Your task to perform on an android device: uninstall "Firefox Browser" Image 0: 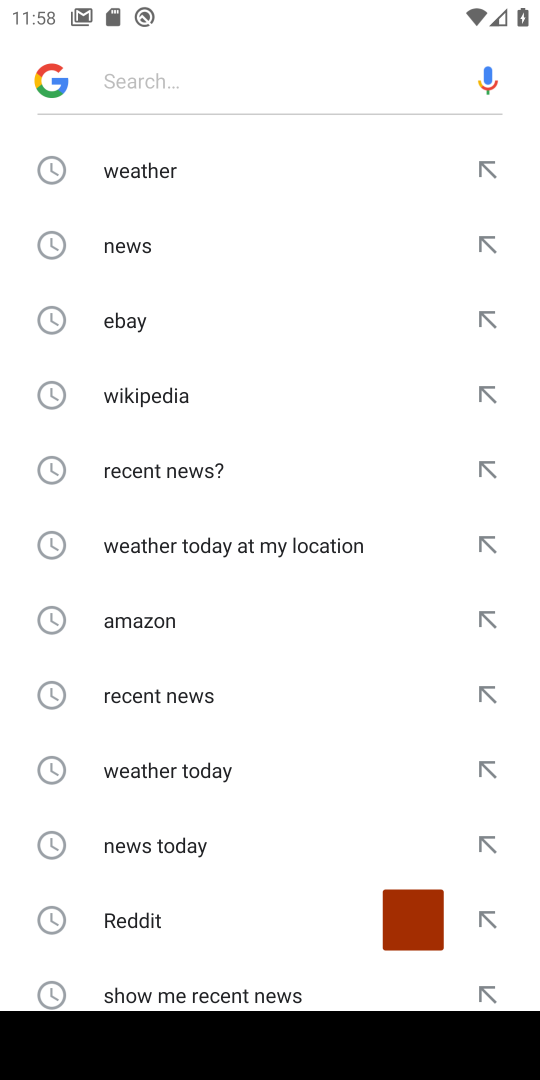
Step 0: press back button
Your task to perform on an android device: uninstall "Firefox Browser" Image 1: 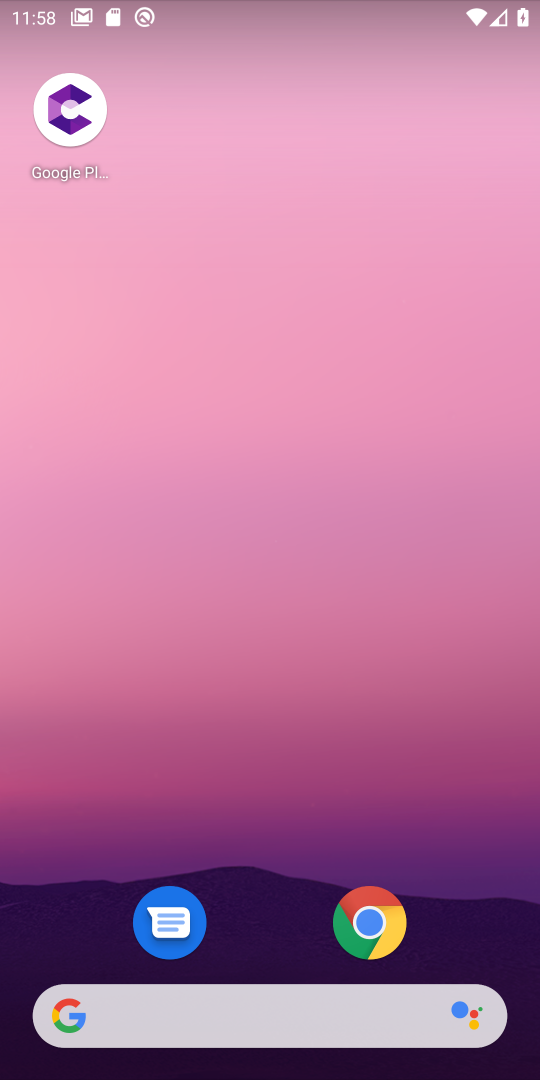
Step 1: drag from (250, 742) to (252, 126)
Your task to perform on an android device: uninstall "Firefox Browser" Image 2: 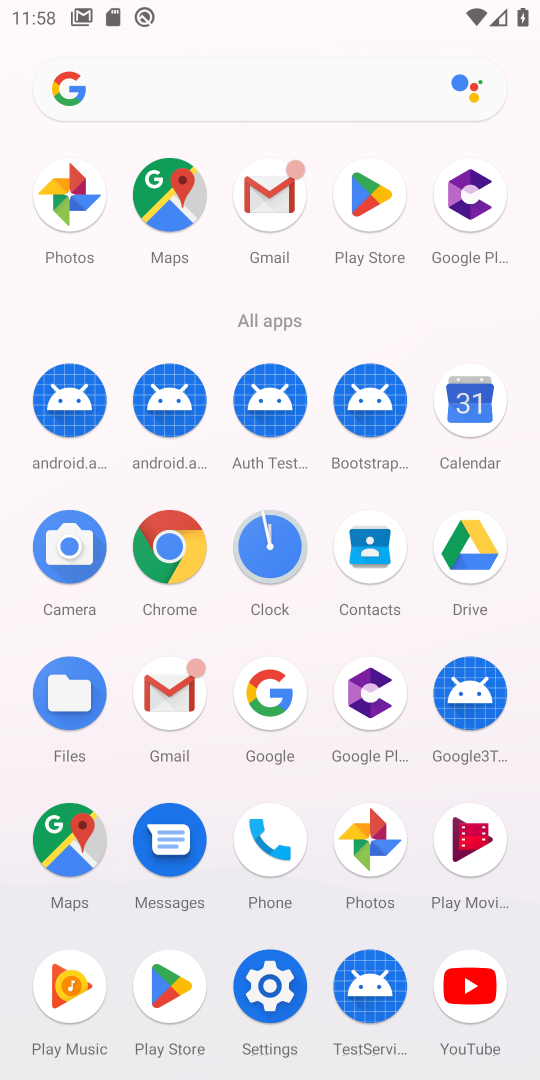
Step 2: click (170, 967)
Your task to perform on an android device: uninstall "Firefox Browser" Image 3: 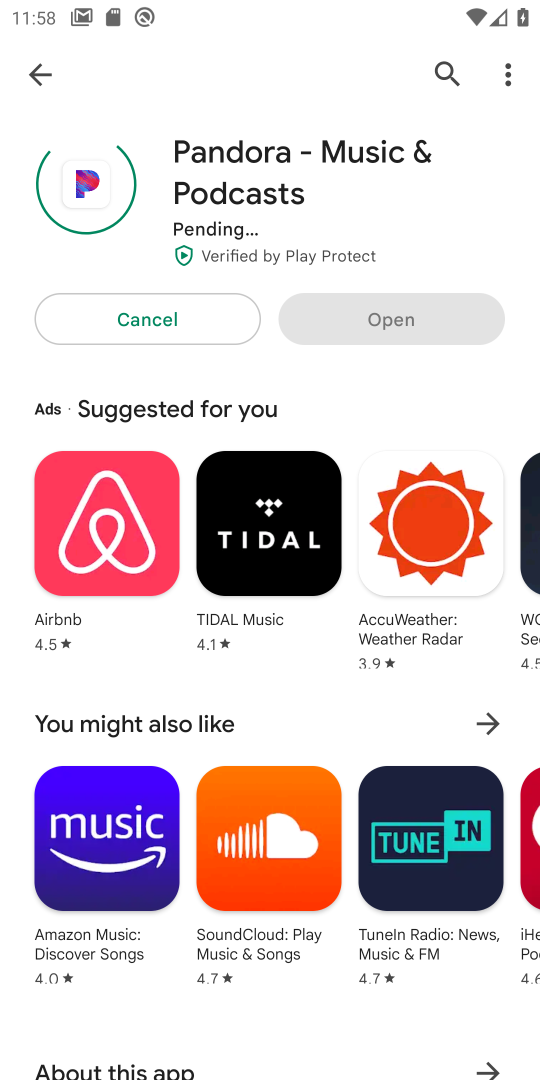
Step 3: click (436, 69)
Your task to perform on an android device: uninstall "Firefox Browser" Image 4: 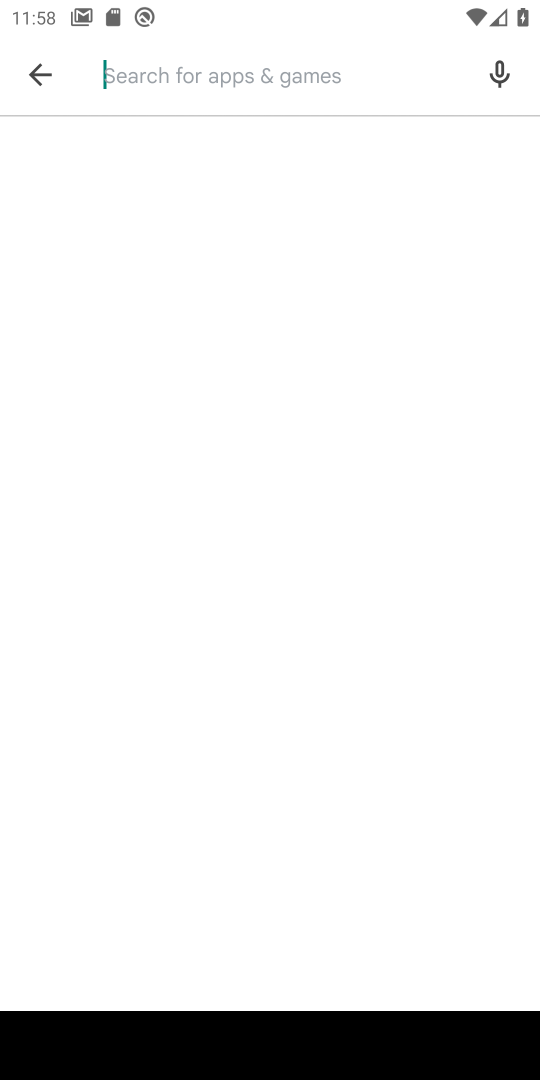
Step 4: type "Firefox Browser"
Your task to perform on an android device: uninstall "Firefox Browser" Image 5: 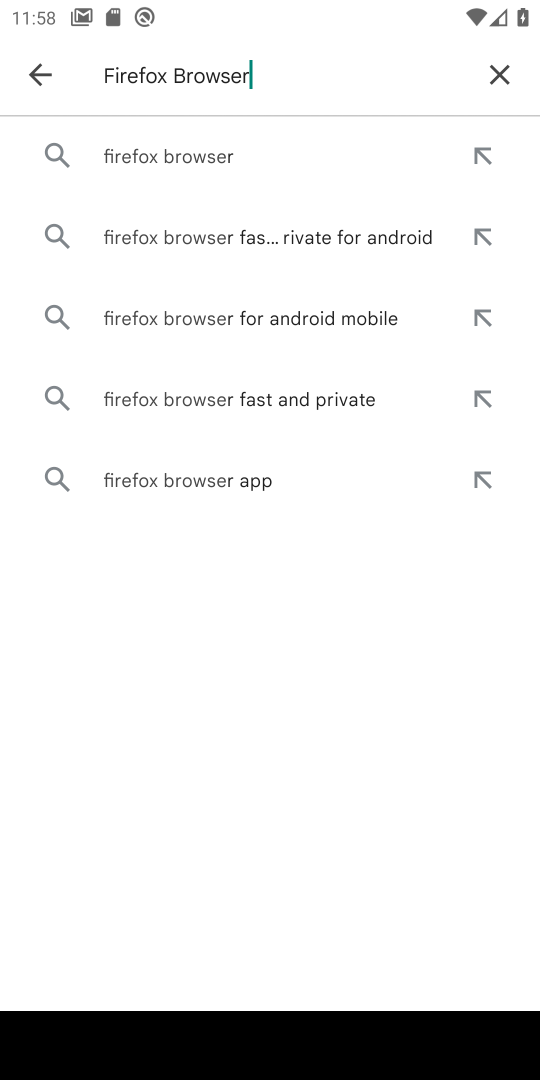
Step 5: type ""
Your task to perform on an android device: uninstall "Firefox Browser" Image 6: 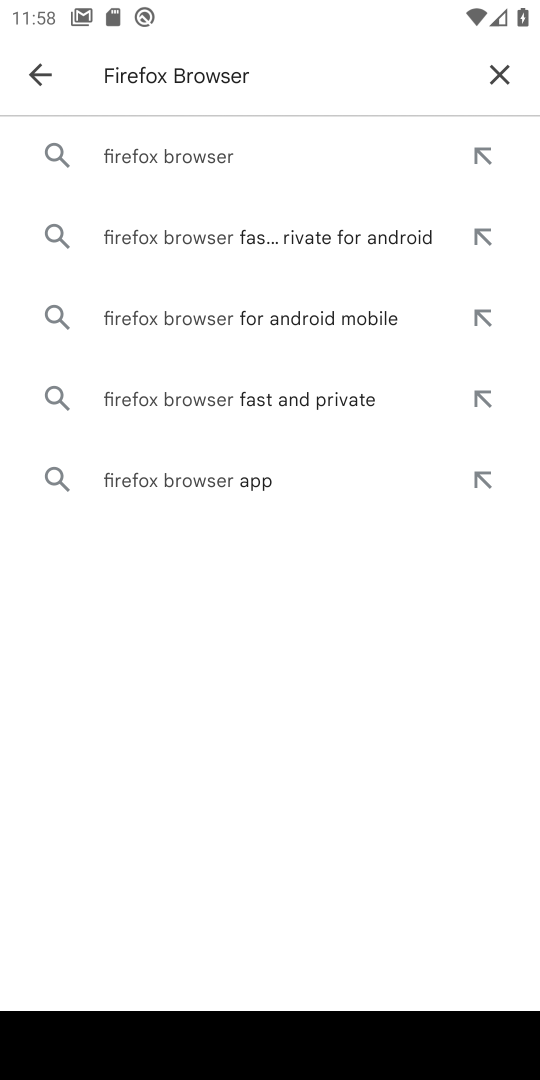
Step 6: click (302, 153)
Your task to perform on an android device: uninstall "Firefox Browser" Image 7: 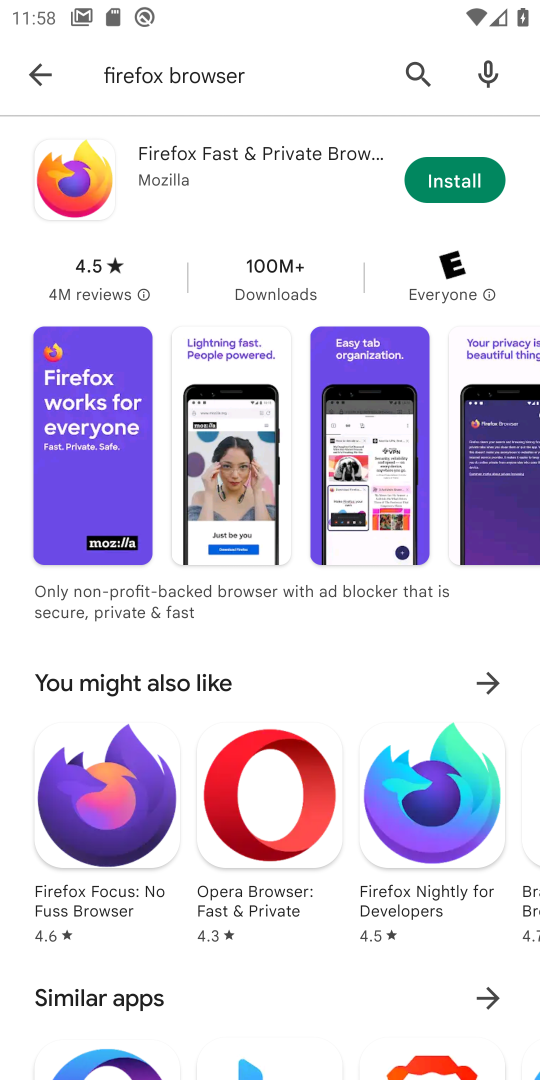
Step 7: task complete